Your task to perform on an android device: show emergency info Image 0: 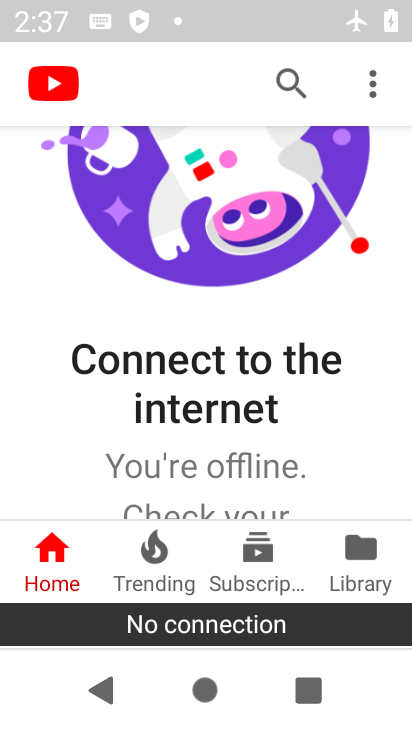
Step 0: press home button
Your task to perform on an android device: show emergency info Image 1: 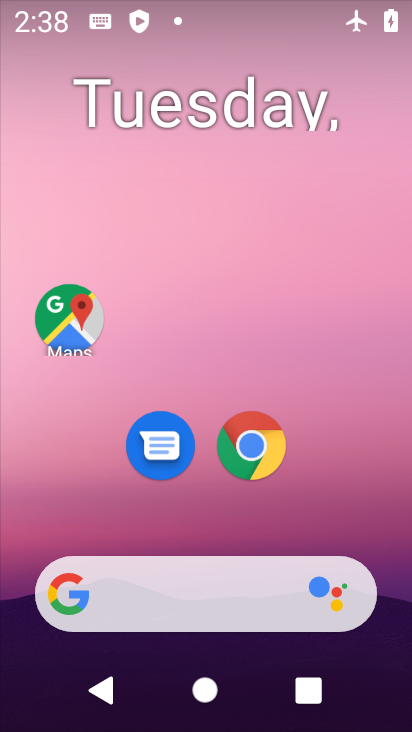
Step 1: drag from (348, 532) to (251, 233)
Your task to perform on an android device: show emergency info Image 2: 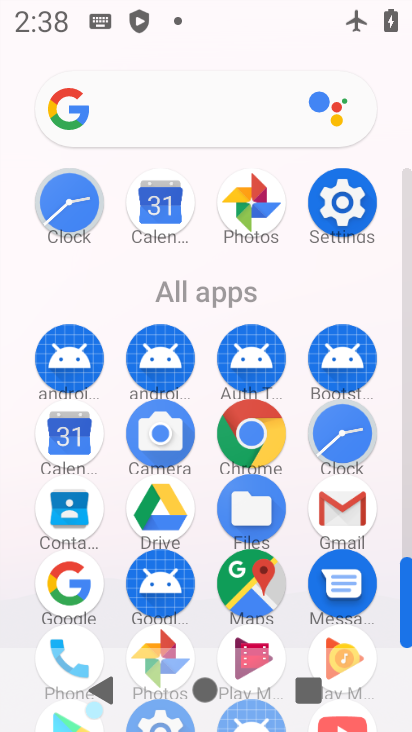
Step 2: click (328, 225)
Your task to perform on an android device: show emergency info Image 3: 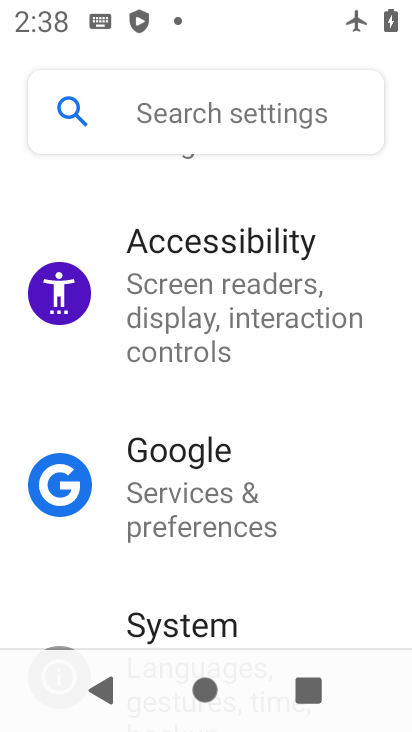
Step 3: drag from (226, 585) to (192, 191)
Your task to perform on an android device: show emergency info Image 4: 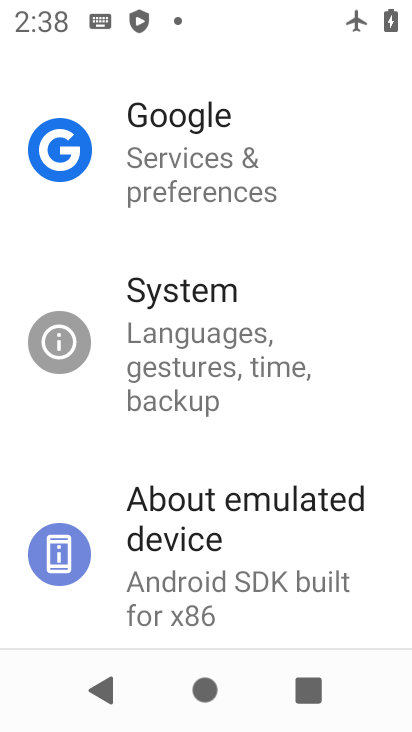
Step 4: click (142, 561)
Your task to perform on an android device: show emergency info Image 5: 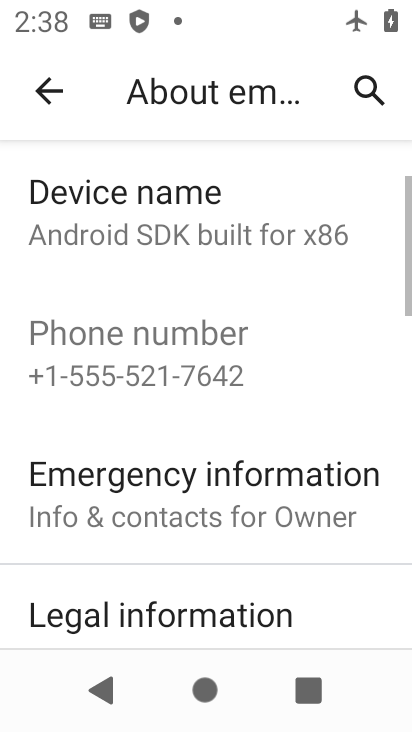
Step 5: click (151, 506)
Your task to perform on an android device: show emergency info Image 6: 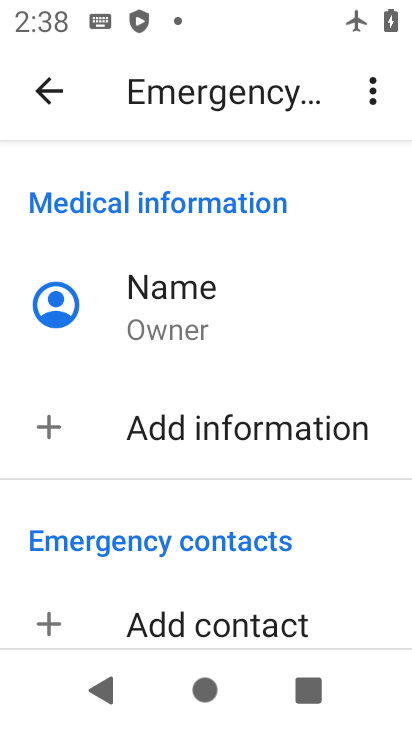
Step 6: task complete